Your task to perform on an android device: turn off notifications settings in the gmail app Image 0: 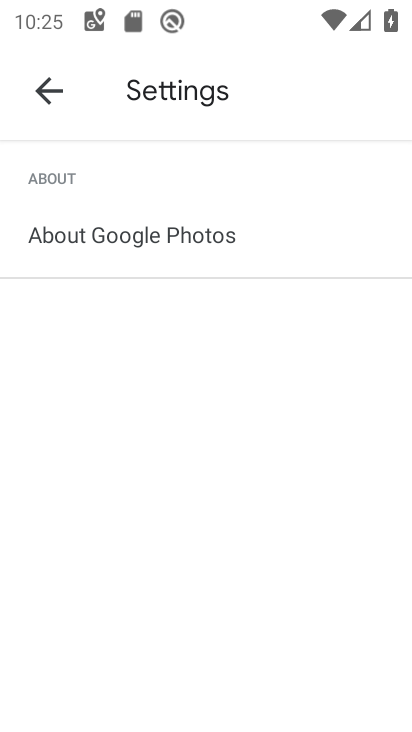
Step 0: press home button
Your task to perform on an android device: turn off notifications settings in the gmail app Image 1: 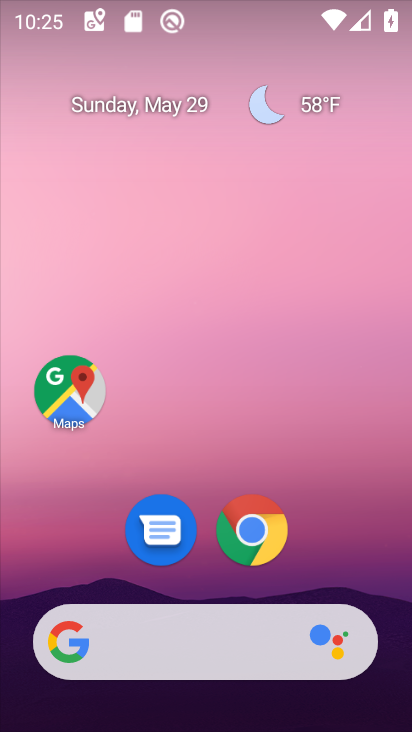
Step 1: drag from (204, 634) to (216, 43)
Your task to perform on an android device: turn off notifications settings in the gmail app Image 2: 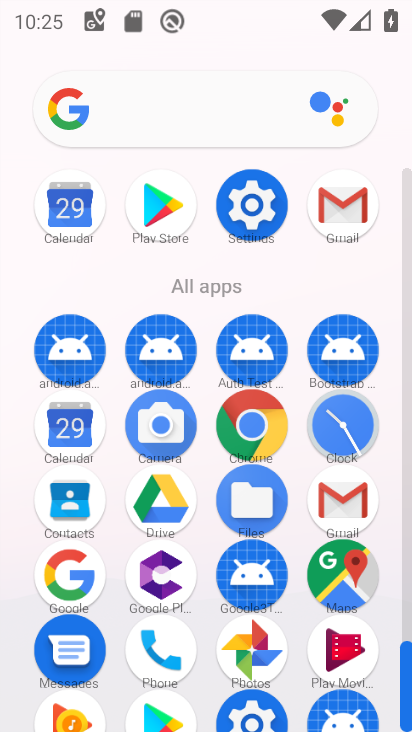
Step 2: click (334, 193)
Your task to perform on an android device: turn off notifications settings in the gmail app Image 3: 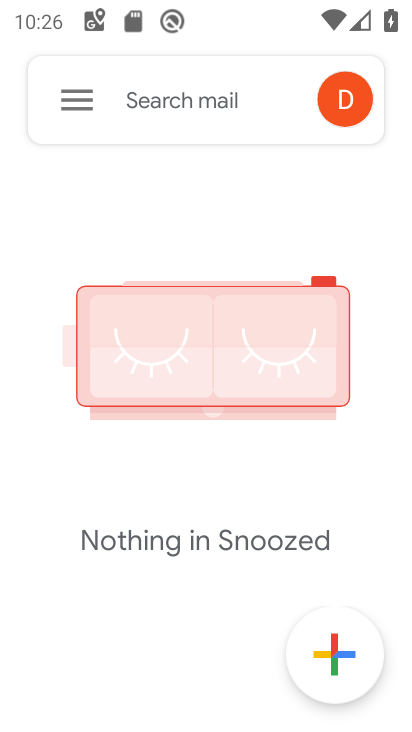
Step 3: click (70, 117)
Your task to perform on an android device: turn off notifications settings in the gmail app Image 4: 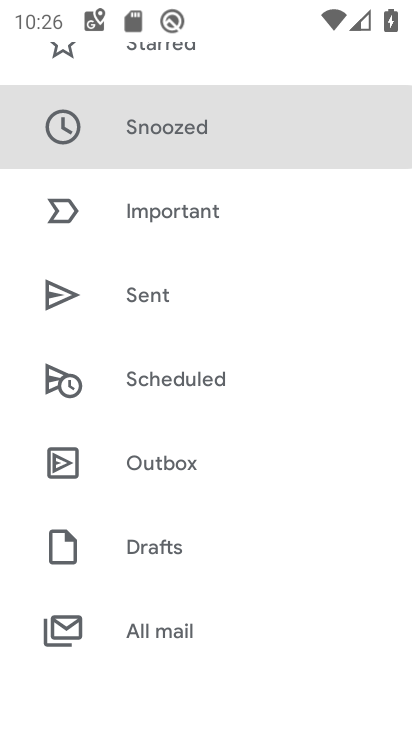
Step 4: drag from (137, 636) to (147, 29)
Your task to perform on an android device: turn off notifications settings in the gmail app Image 5: 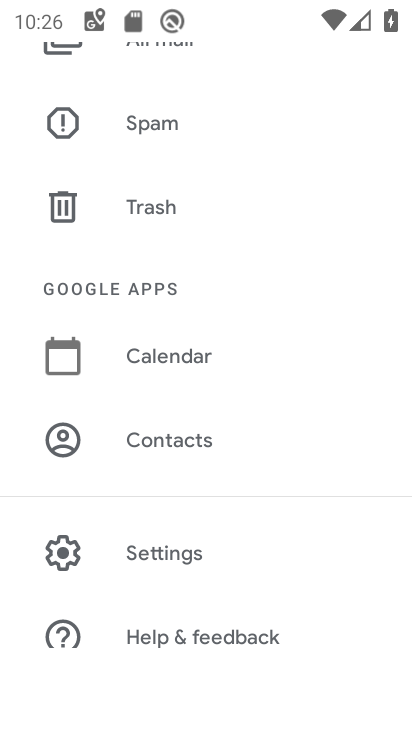
Step 5: click (208, 546)
Your task to perform on an android device: turn off notifications settings in the gmail app Image 6: 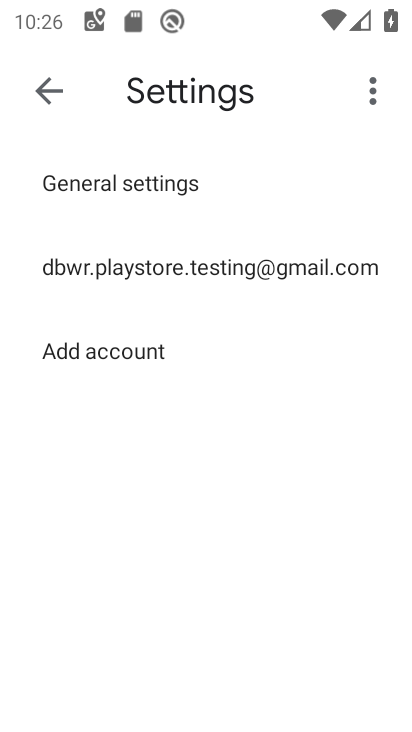
Step 6: click (289, 268)
Your task to perform on an android device: turn off notifications settings in the gmail app Image 7: 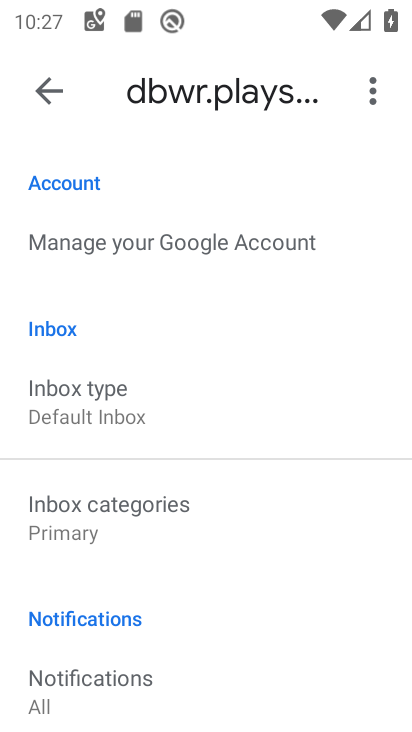
Step 7: drag from (203, 590) to (220, 138)
Your task to perform on an android device: turn off notifications settings in the gmail app Image 8: 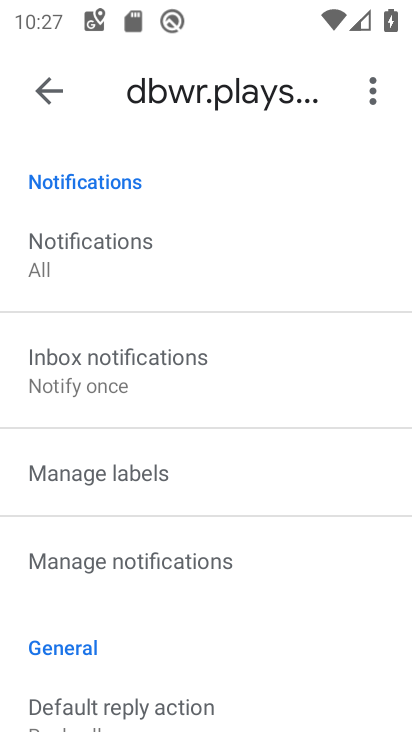
Step 8: click (206, 557)
Your task to perform on an android device: turn off notifications settings in the gmail app Image 9: 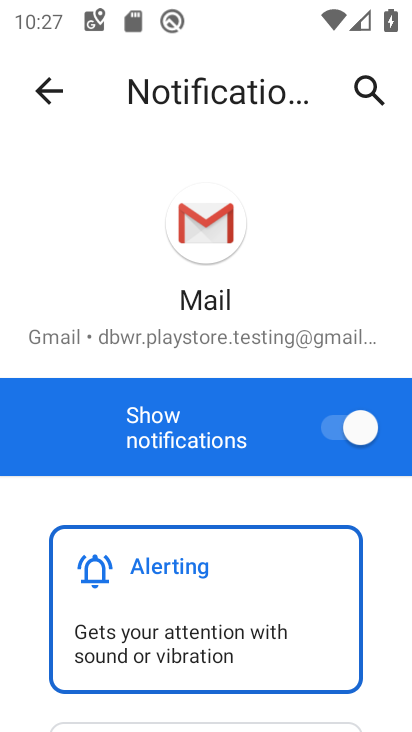
Step 9: click (345, 427)
Your task to perform on an android device: turn off notifications settings in the gmail app Image 10: 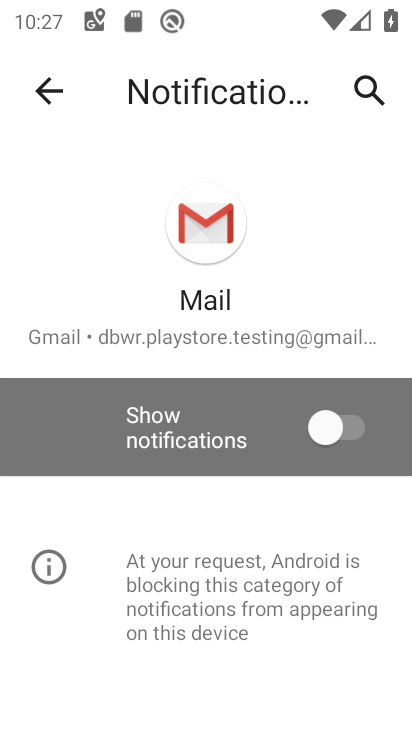
Step 10: task complete